Your task to perform on an android device: create a new album in the google photos Image 0: 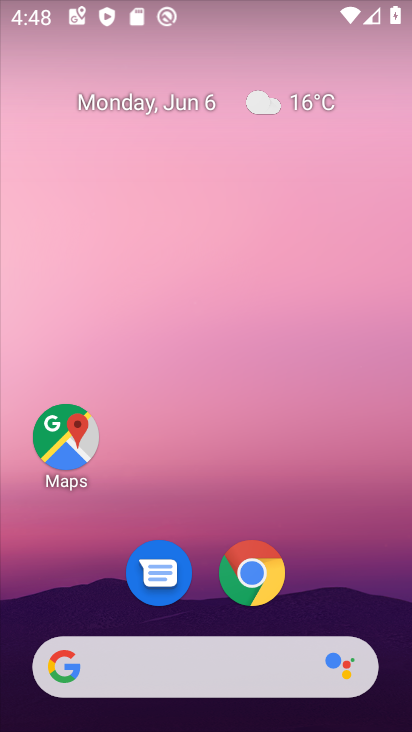
Step 0: drag from (338, 568) to (255, 34)
Your task to perform on an android device: create a new album in the google photos Image 1: 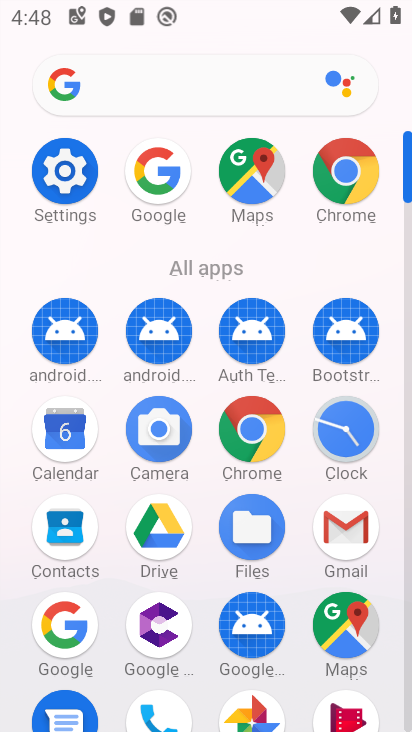
Step 1: drag from (293, 508) to (313, 217)
Your task to perform on an android device: create a new album in the google photos Image 2: 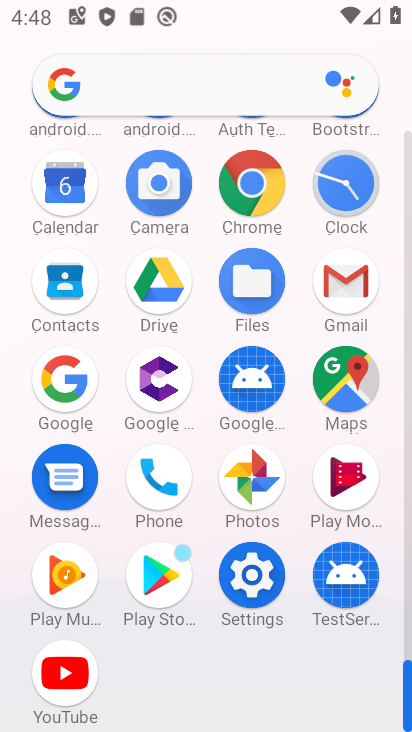
Step 2: click (250, 483)
Your task to perform on an android device: create a new album in the google photos Image 3: 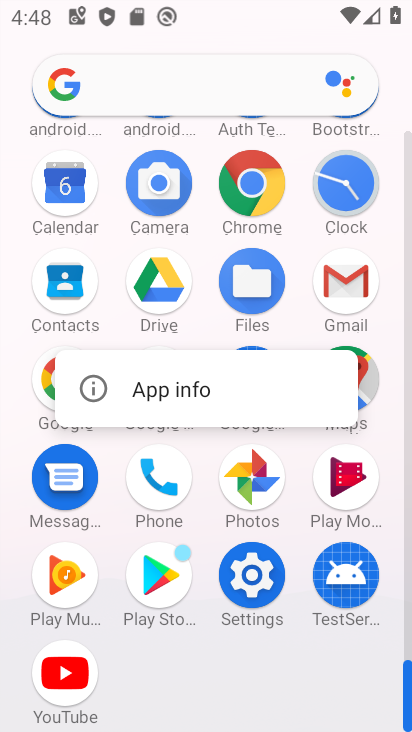
Step 3: click (250, 483)
Your task to perform on an android device: create a new album in the google photos Image 4: 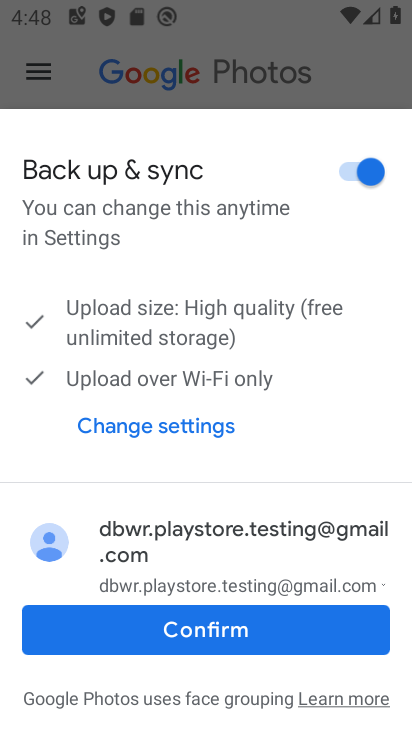
Step 4: click (213, 615)
Your task to perform on an android device: create a new album in the google photos Image 5: 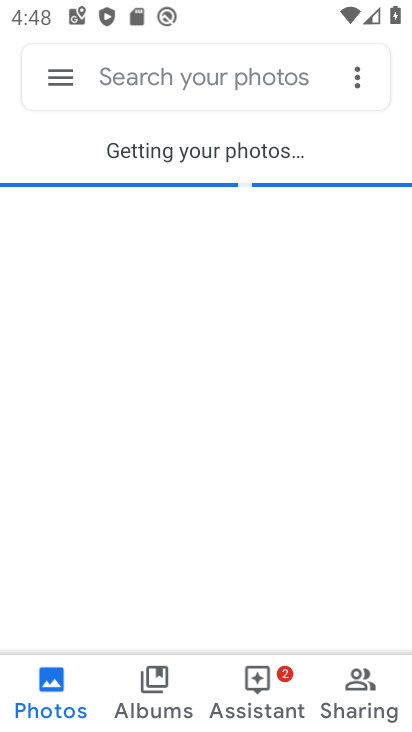
Step 5: click (355, 79)
Your task to perform on an android device: create a new album in the google photos Image 6: 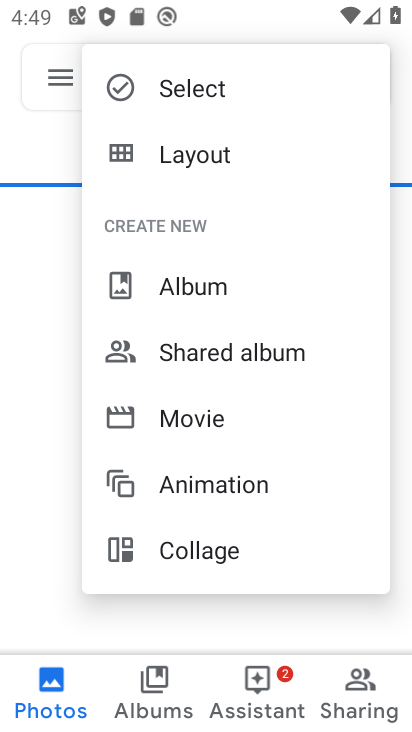
Step 6: click (214, 285)
Your task to perform on an android device: create a new album in the google photos Image 7: 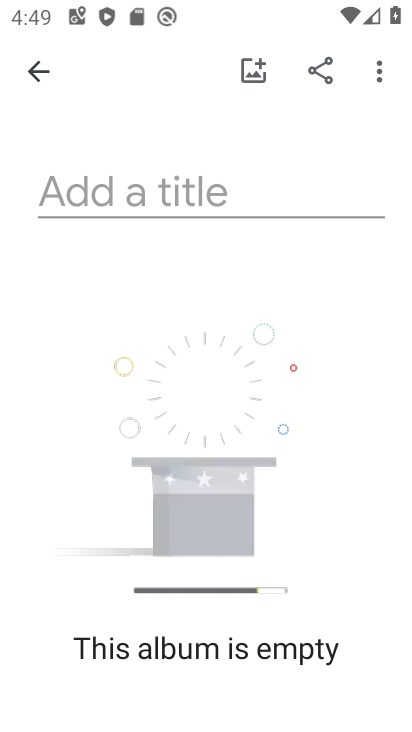
Step 7: click (249, 196)
Your task to perform on an android device: create a new album in the google photos Image 8: 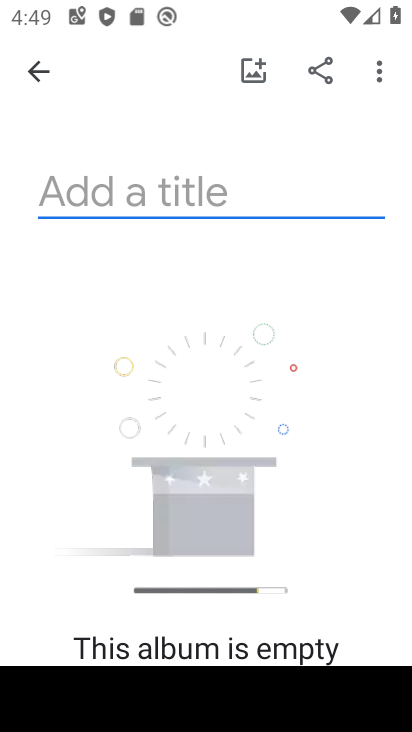
Step 8: type "R j"
Your task to perform on an android device: create a new album in the google photos Image 9: 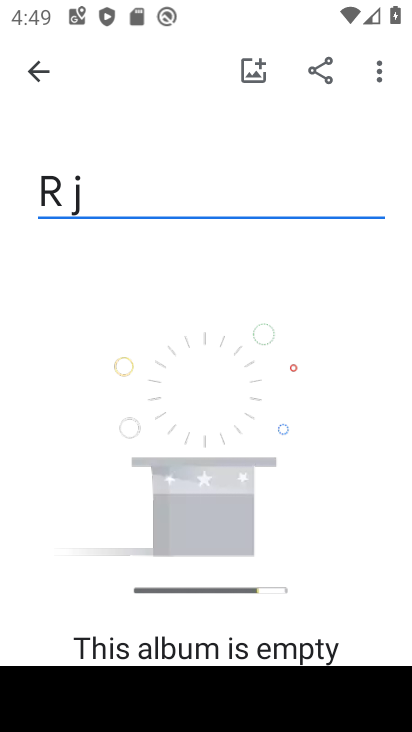
Step 9: drag from (200, 542) to (298, 353)
Your task to perform on an android device: create a new album in the google photos Image 10: 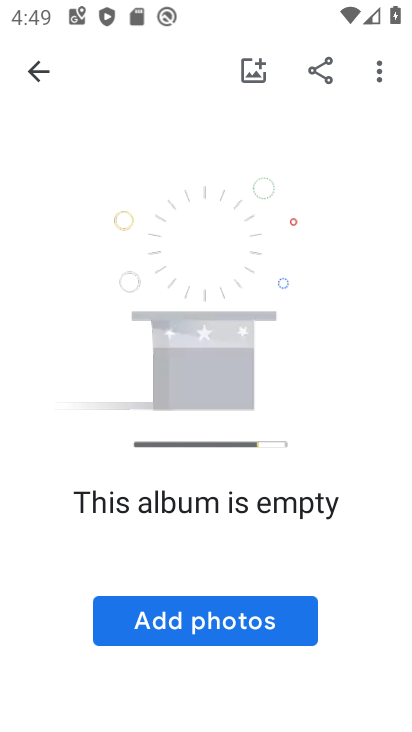
Step 10: click (190, 603)
Your task to perform on an android device: create a new album in the google photos Image 11: 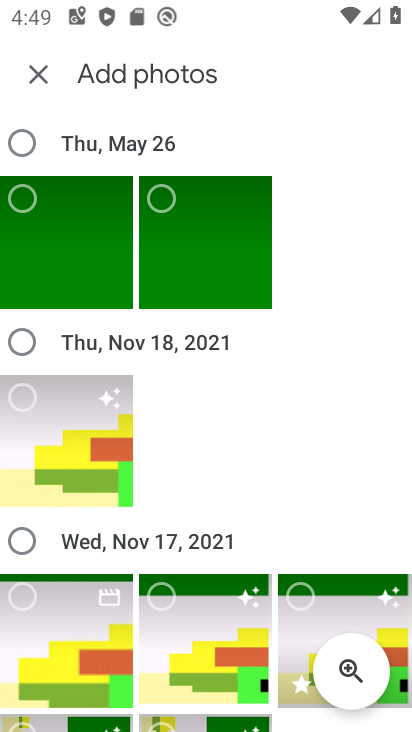
Step 11: drag from (236, 451) to (243, 544)
Your task to perform on an android device: create a new album in the google photos Image 12: 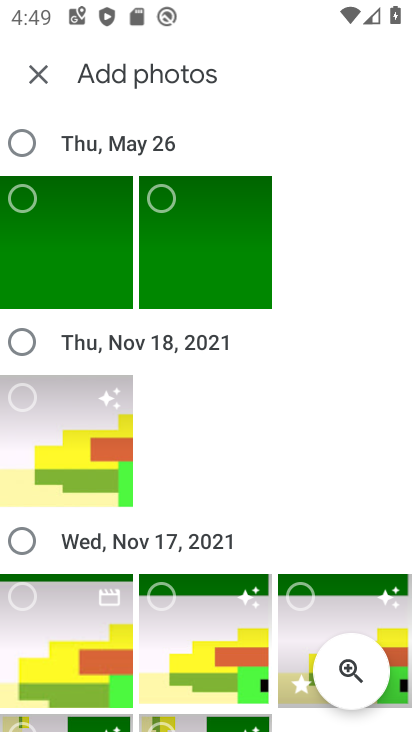
Step 12: click (10, 140)
Your task to perform on an android device: create a new album in the google photos Image 13: 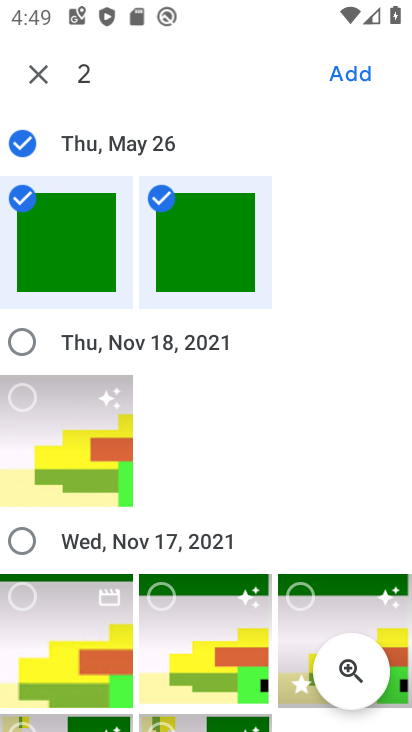
Step 13: click (361, 73)
Your task to perform on an android device: create a new album in the google photos Image 14: 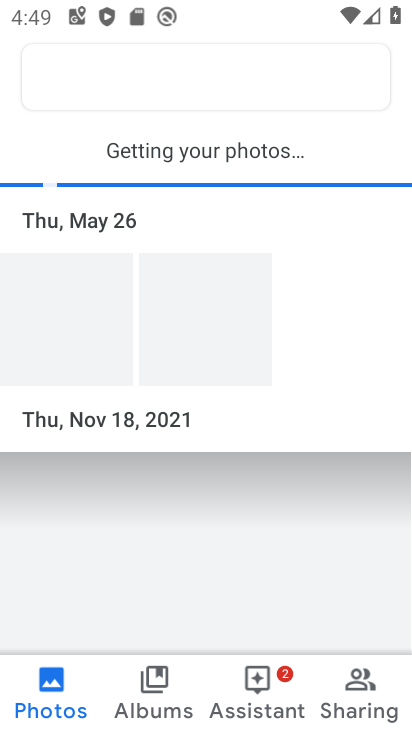
Step 14: task complete